Your task to perform on an android device: open wifi settings Image 0: 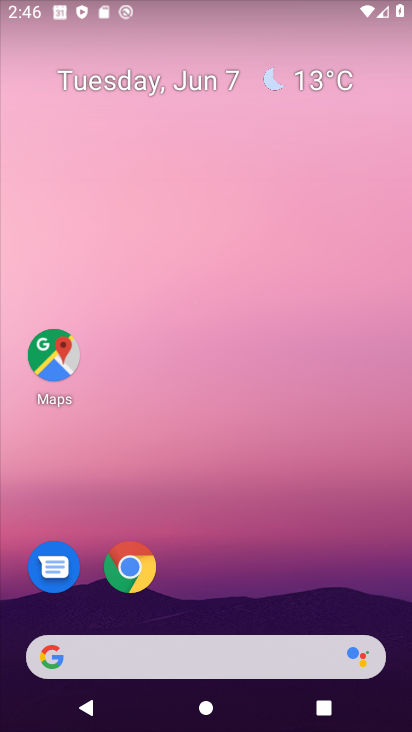
Step 0: press home button
Your task to perform on an android device: open wifi settings Image 1: 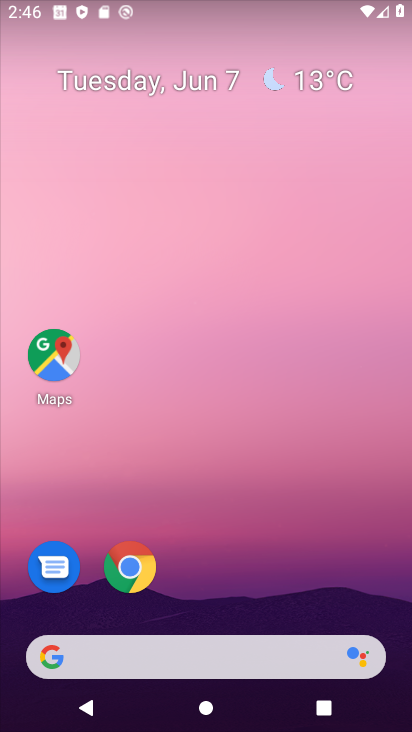
Step 1: press home button
Your task to perform on an android device: open wifi settings Image 2: 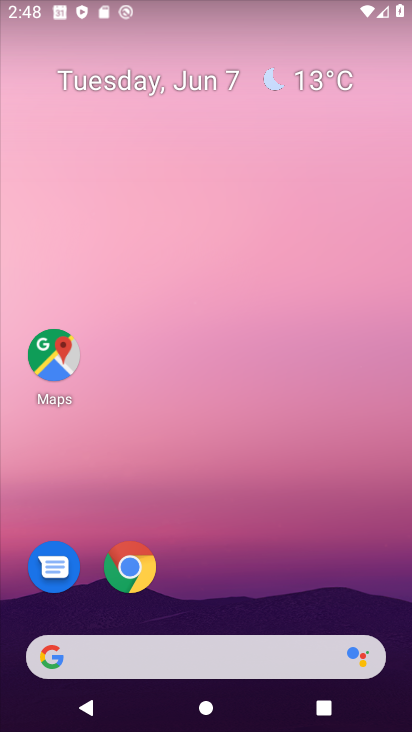
Step 2: drag from (219, 5) to (307, 519)
Your task to perform on an android device: open wifi settings Image 3: 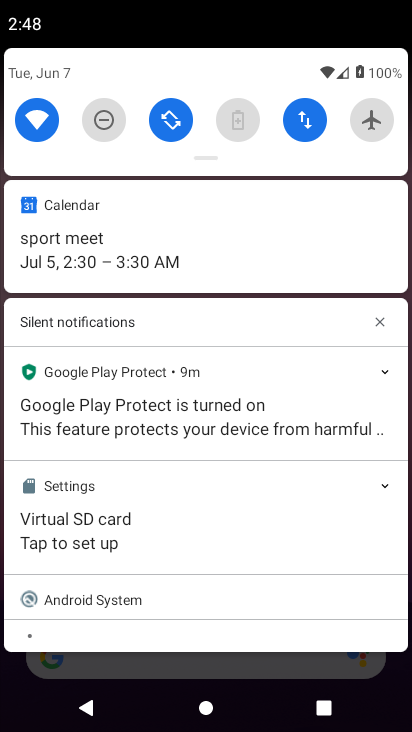
Step 3: click (45, 144)
Your task to perform on an android device: open wifi settings Image 4: 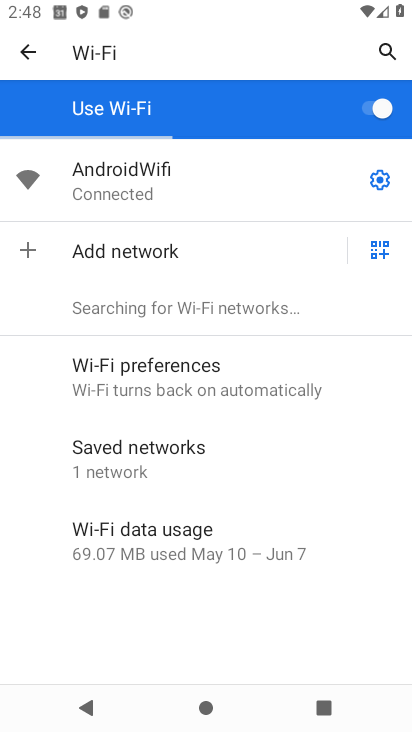
Step 4: task complete